Your task to perform on an android device: turn notification dots off Image 0: 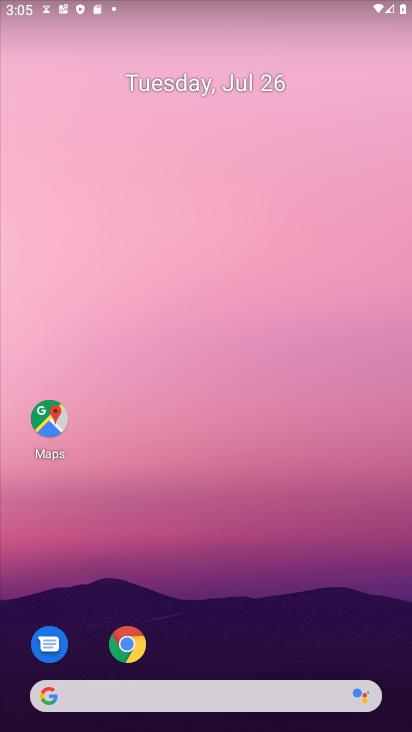
Step 0: press home button
Your task to perform on an android device: turn notification dots off Image 1: 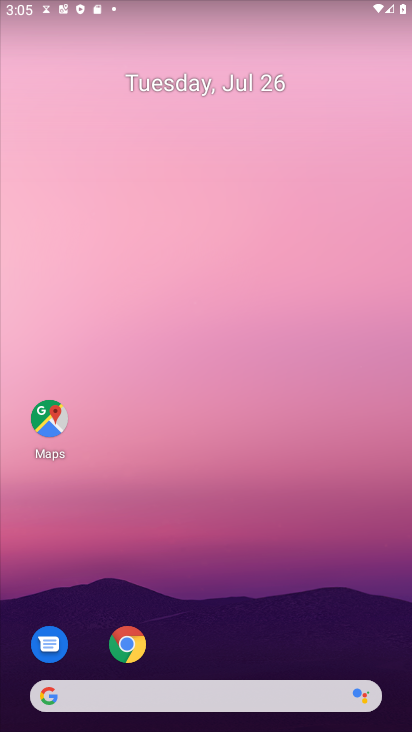
Step 1: drag from (277, 607) to (247, 78)
Your task to perform on an android device: turn notification dots off Image 2: 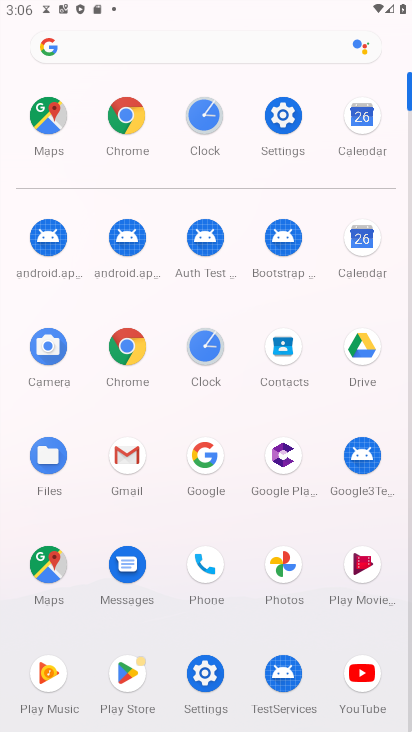
Step 2: click (294, 117)
Your task to perform on an android device: turn notification dots off Image 3: 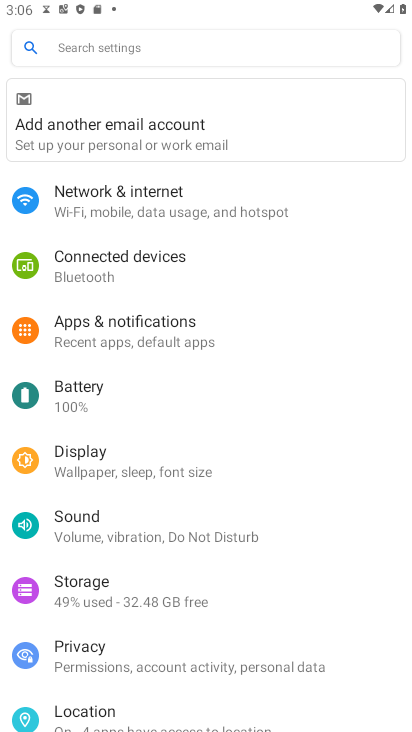
Step 3: click (104, 338)
Your task to perform on an android device: turn notification dots off Image 4: 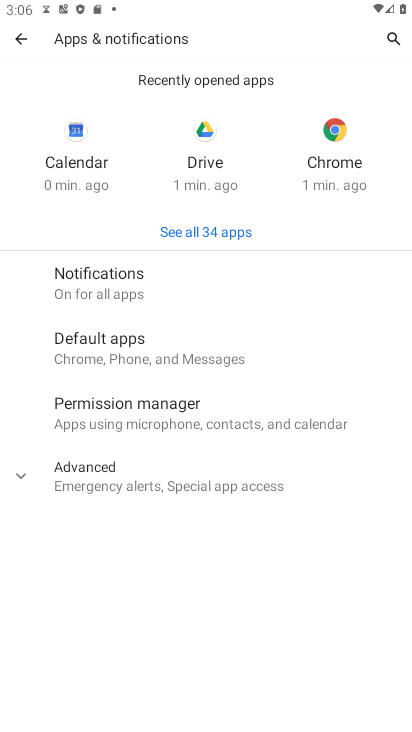
Step 4: click (128, 284)
Your task to perform on an android device: turn notification dots off Image 5: 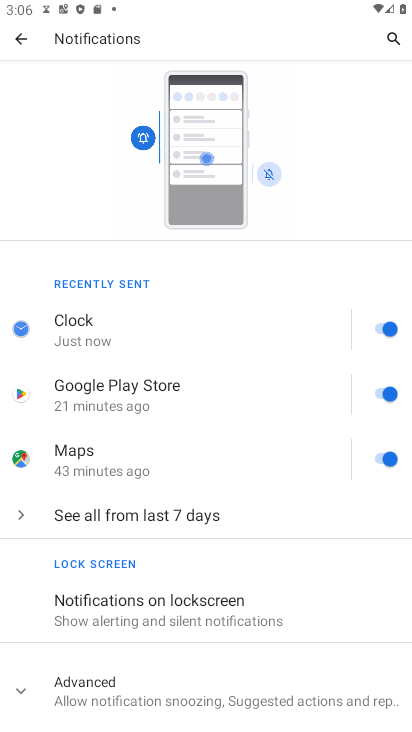
Step 5: click (20, 693)
Your task to perform on an android device: turn notification dots off Image 6: 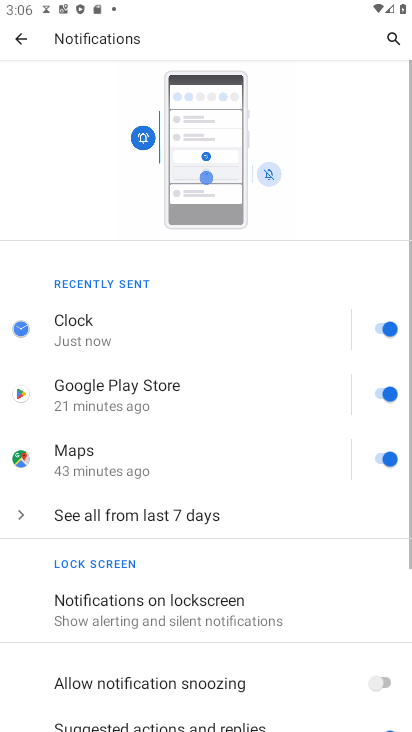
Step 6: drag from (247, 548) to (253, 243)
Your task to perform on an android device: turn notification dots off Image 7: 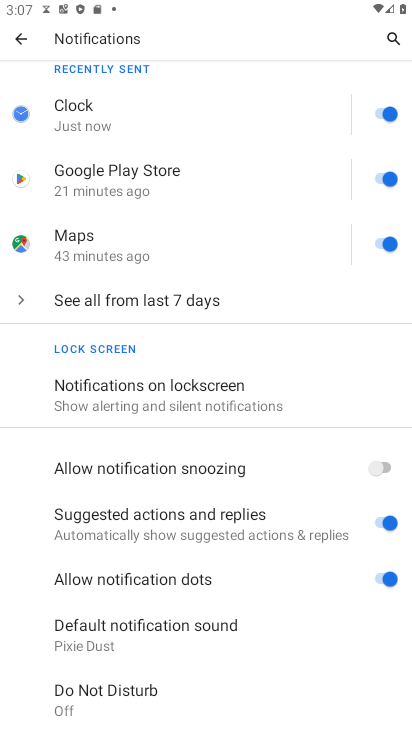
Step 7: click (380, 572)
Your task to perform on an android device: turn notification dots off Image 8: 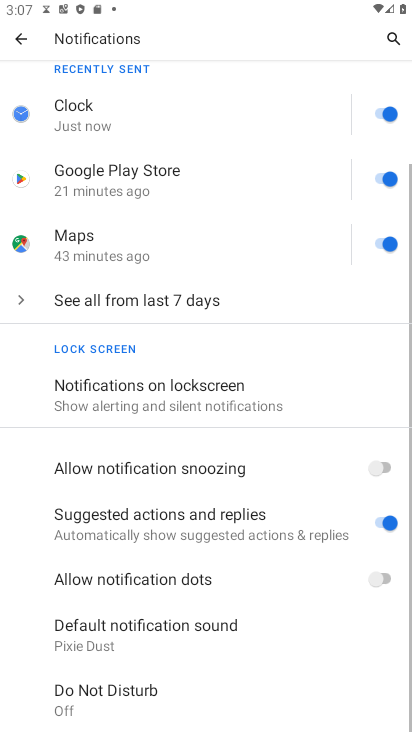
Step 8: task complete